Your task to perform on an android device: delete the emails in spam in the gmail app Image 0: 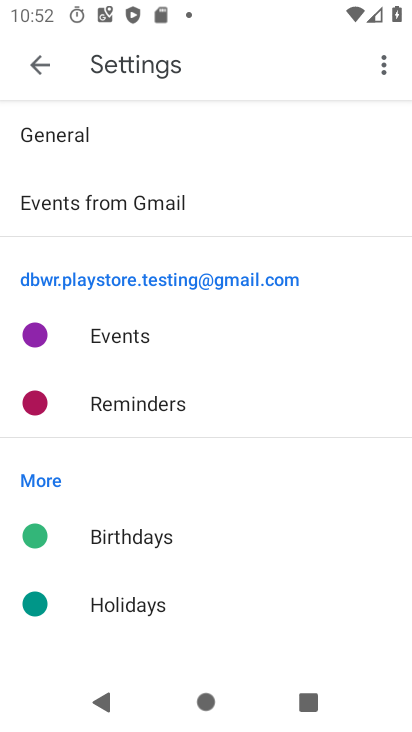
Step 0: press home button
Your task to perform on an android device: delete the emails in spam in the gmail app Image 1: 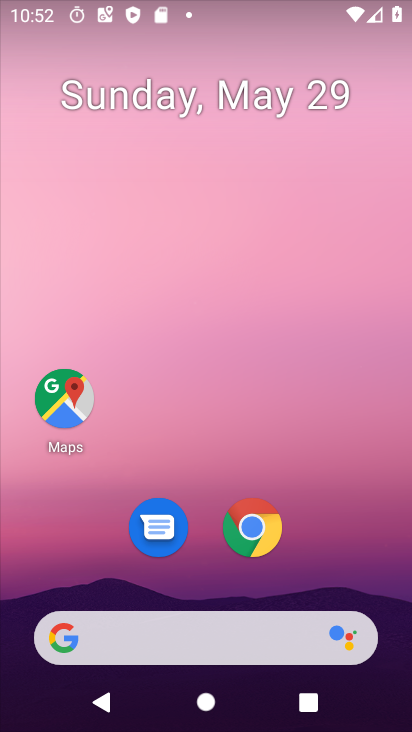
Step 1: drag from (380, 515) to (312, 0)
Your task to perform on an android device: delete the emails in spam in the gmail app Image 2: 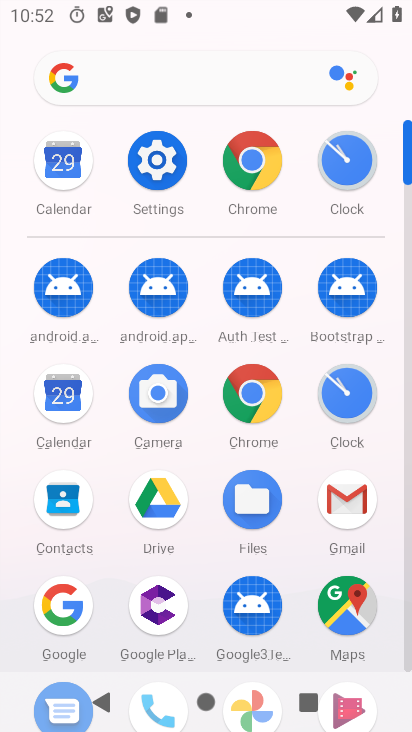
Step 2: click (358, 508)
Your task to perform on an android device: delete the emails in spam in the gmail app Image 3: 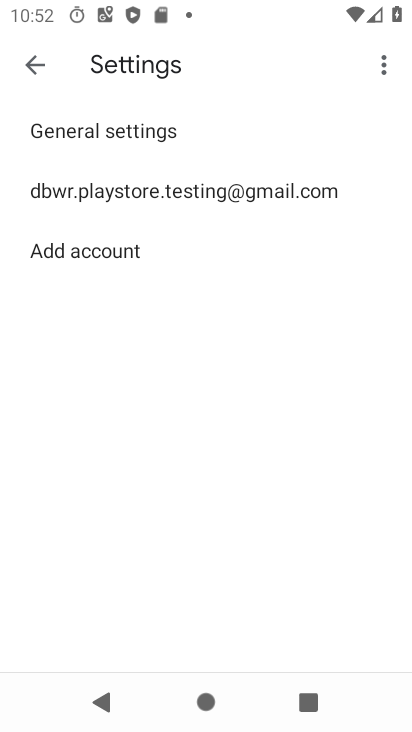
Step 3: click (26, 56)
Your task to perform on an android device: delete the emails in spam in the gmail app Image 4: 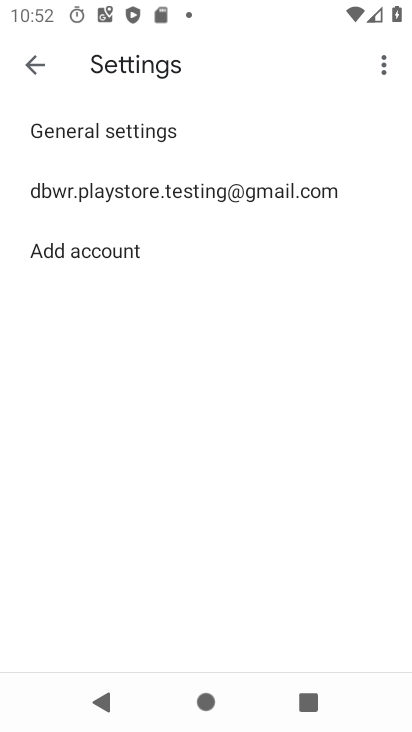
Step 4: click (35, 70)
Your task to perform on an android device: delete the emails in spam in the gmail app Image 5: 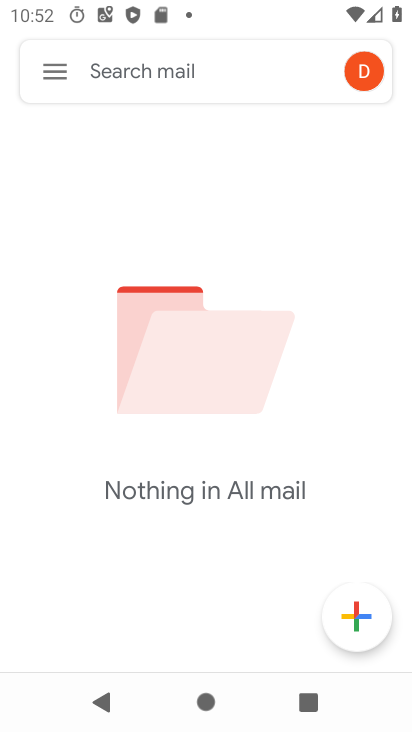
Step 5: click (35, 70)
Your task to perform on an android device: delete the emails in spam in the gmail app Image 6: 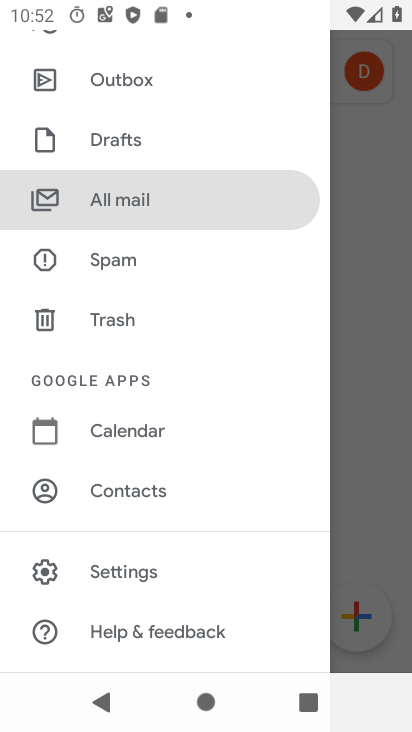
Step 6: click (146, 270)
Your task to perform on an android device: delete the emails in spam in the gmail app Image 7: 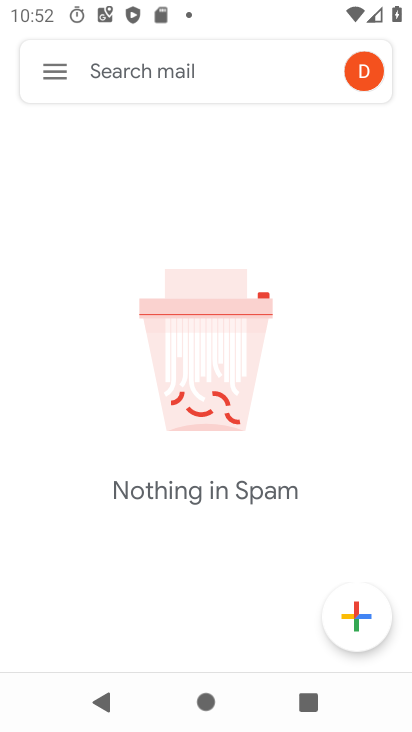
Step 7: task complete